Your task to perform on an android device: Open Google Chrome Image 0: 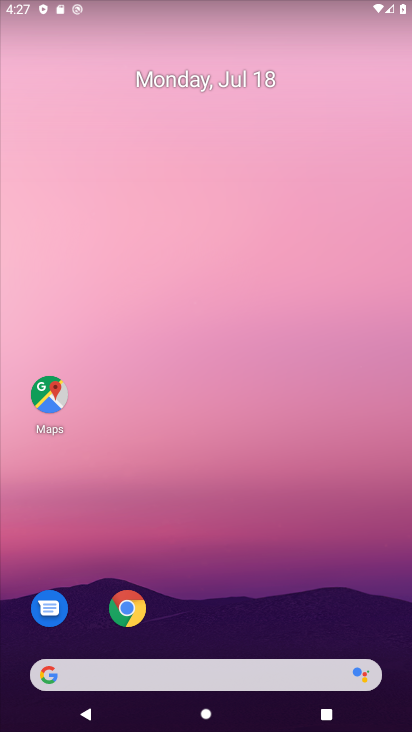
Step 0: click (128, 604)
Your task to perform on an android device: Open Google Chrome Image 1: 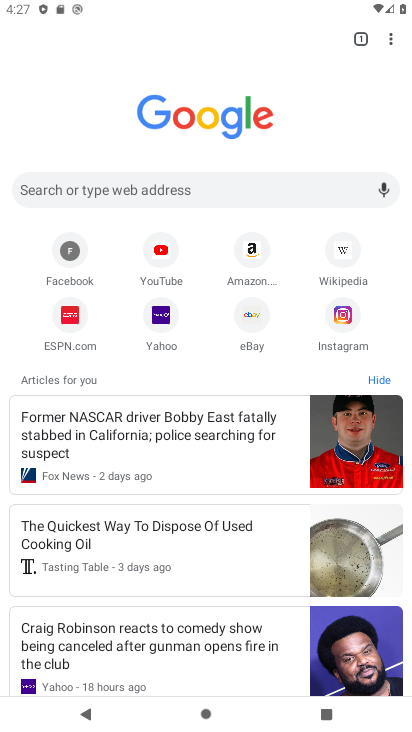
Step 1: task complete